Your task to perform on an android device: Open Google Maps Image 0: 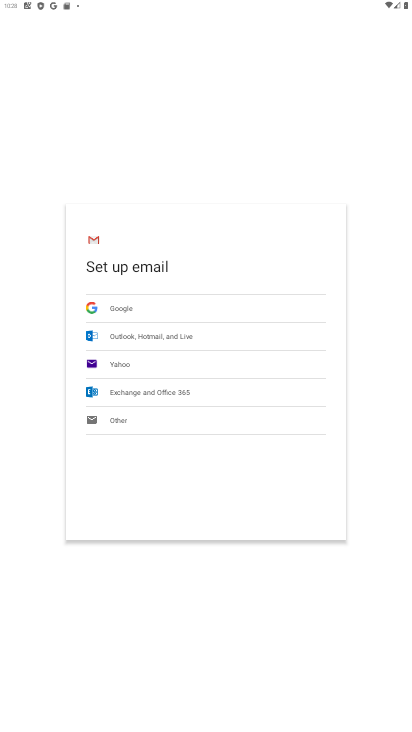
Step 0: press home button
Your task to perform on an android device: Open Google Maps Image 1: 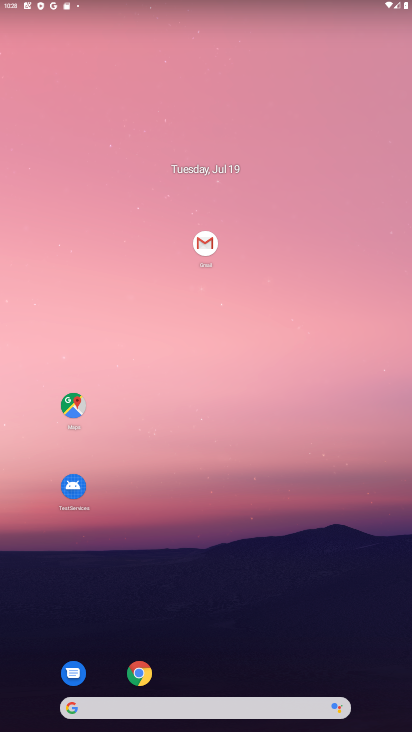
Step 1: click (73, 409)
Your task to perform on an android device: Open Google Maps Image 2: 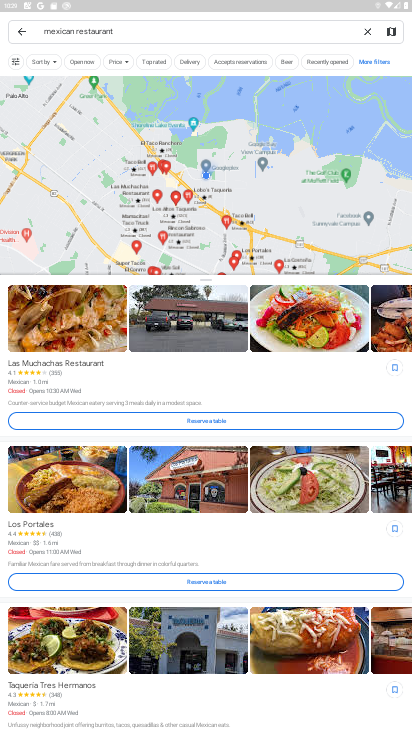
Step 2: task complete